Your task to perform on an android device: empty trash in google photos Image 0: 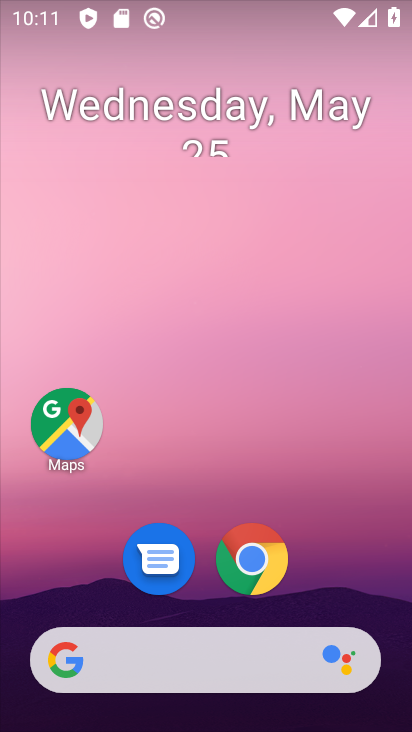
Step 0: drag from (327, 560) to (294, 16)
Your task to perform on an android device: empty trash in google photos Image 1: 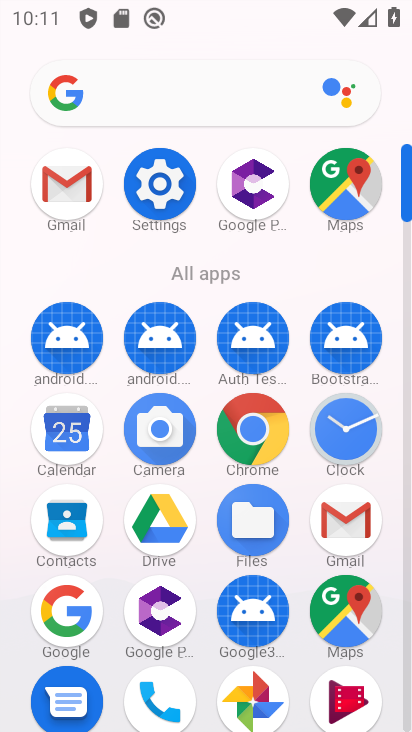
Step 1: drag from (116, 569) to (195, 169)
Your task to perform on an android device: empty trash in google photos Image 2: 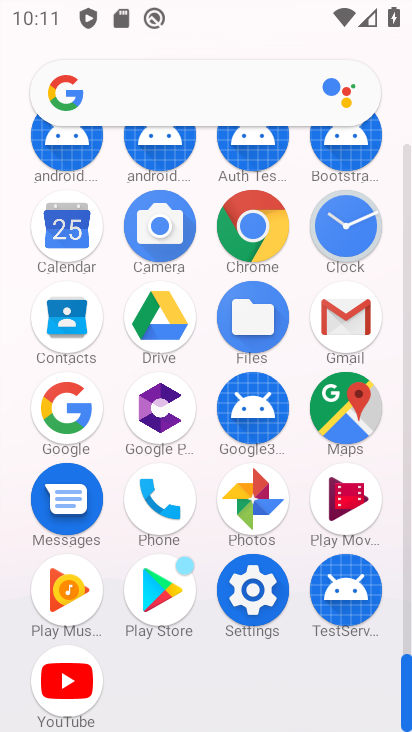
Step 2: click (250, 507)
Your task to perform on an android device: empty trash in google photos Image 3: 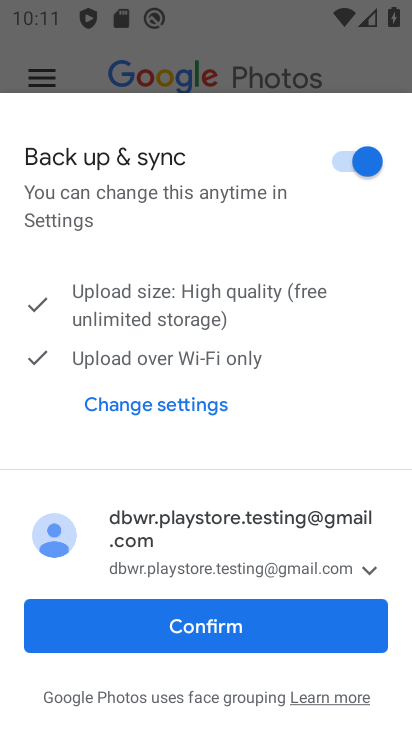
Step 3: click (224, 636)
Your task to perform on an android device: empty trash in google photos Image 4: 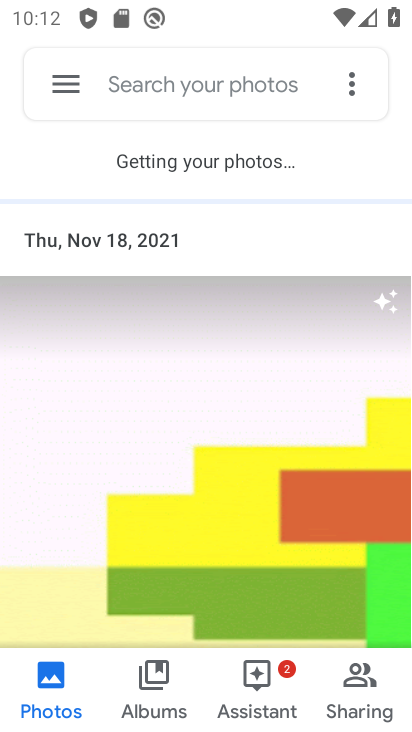
Step 4: click (59, 83)
Your task to perform on an android device: empty trash in google photos Image 5: 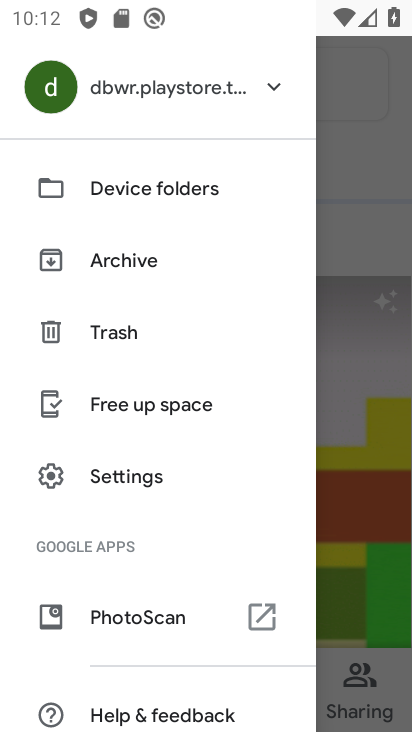
Step 5: click (121, 331)
Your task to perform on an android device: empty trash in google photos Image 6: 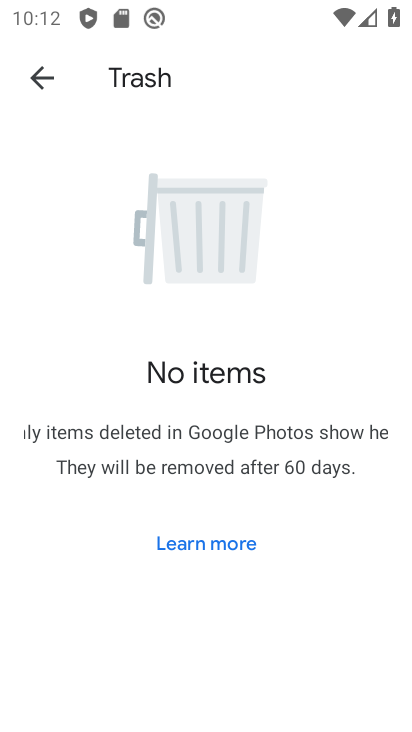
Step 6: task complete